Your task to perform on an android device: change the clock display to digital Image 0: 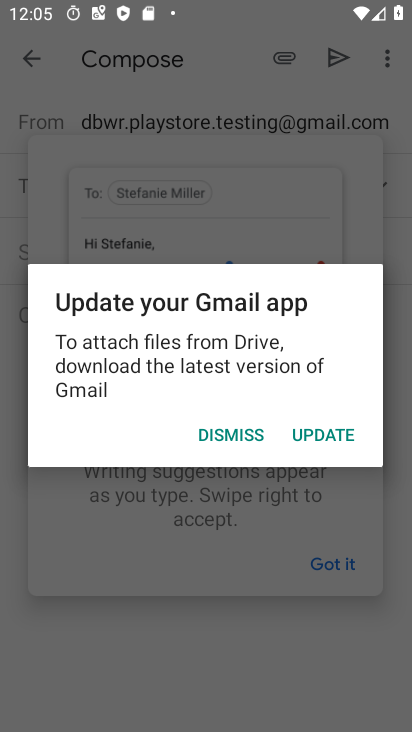
Step 0: press home button
Your task to perform on an android device: change the clock display to digital Image 1: 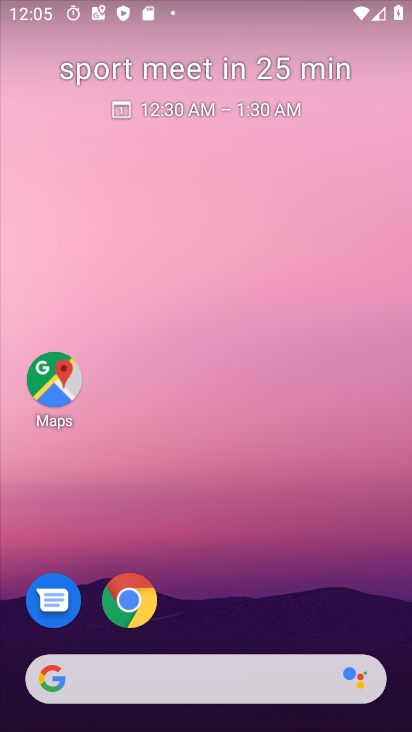
Step 1: drag from (205, 644) to (271, 43)
Your task to perform on an android device: change the clock display to digital Image 2: 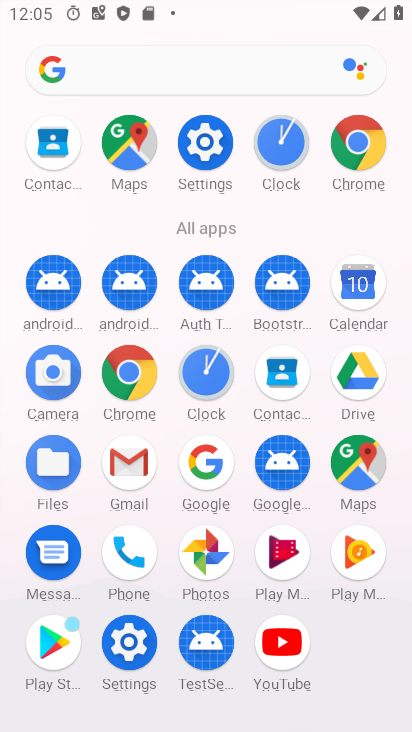
Step 2: click (286, 156)
Your task to perform on an android device: change the clock display to digital Image 3: 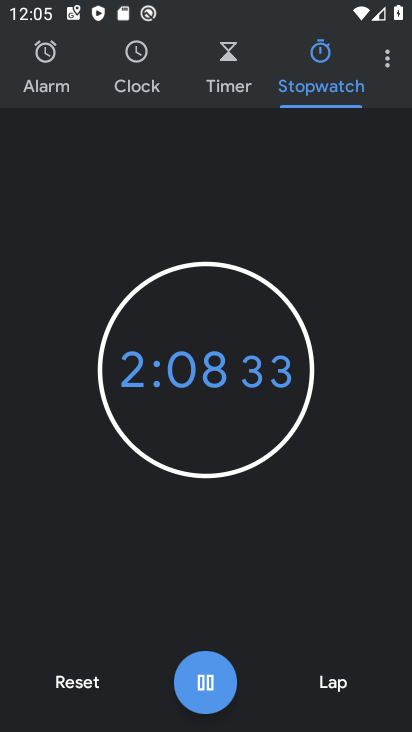
Step 3: click (390, 57)
Your task to perform on an android device: change the clock display to digital Image 4: 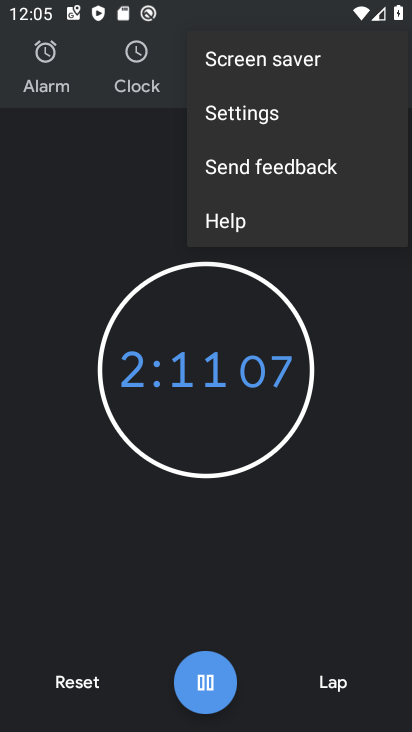
Step 4: click (288, 121)
Your task to perform on an android device: change the clock display to digital Image 5: 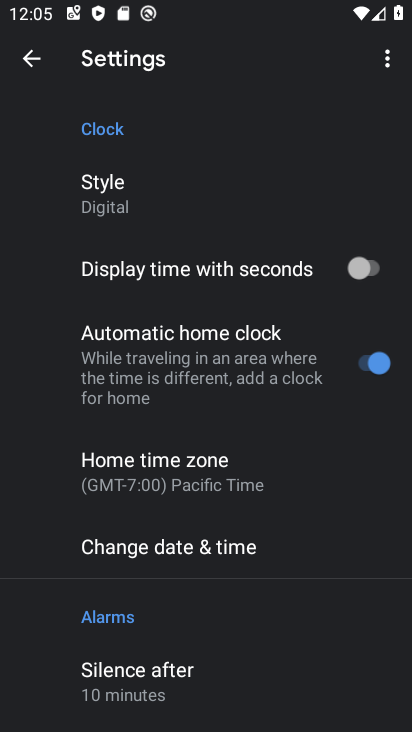
Step 5: click (120, 206)
Your task to perform on an android device: change the clock display to digital Image 6: 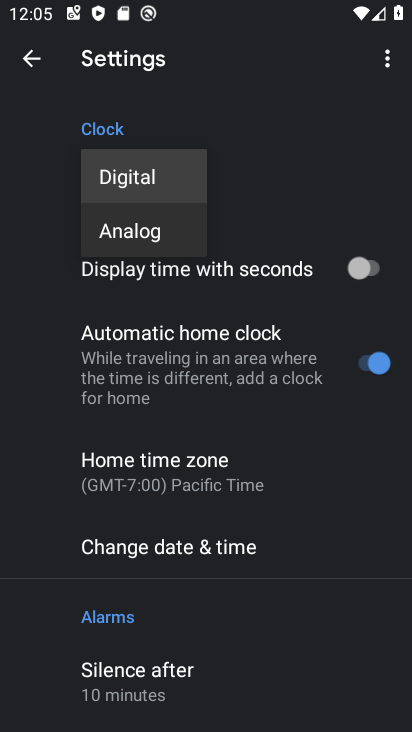
Step 6: task complete